Your task to perform on an android device: Open Reddit.com Image 0: 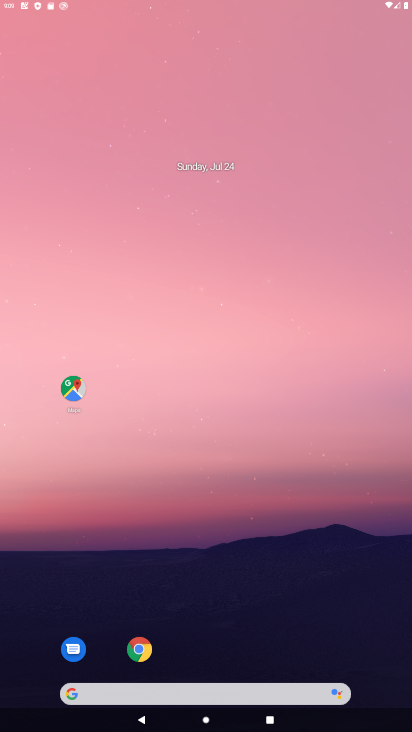
Step 0: press home button
Your task to perform on an android device: Open Reddit.com Image 1: 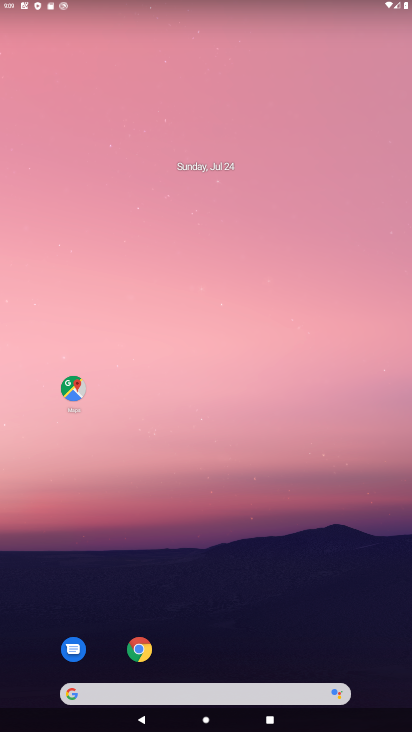
Step 1: drag from (330, 605) to (355, 78)
Your task to perform on an android device: Open Reddit.com Image 2: 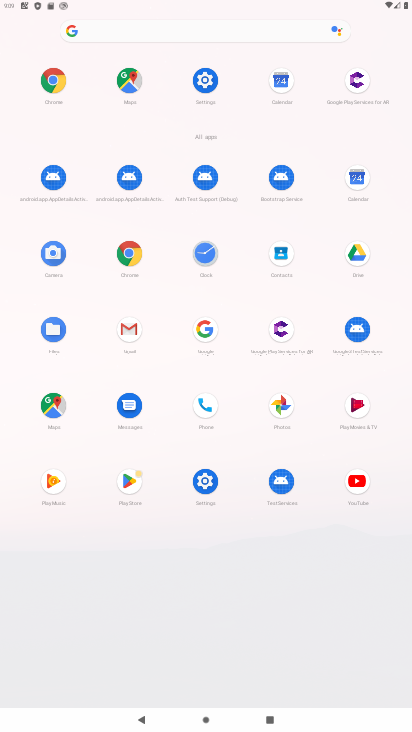
Step 2: click (130, 253)
Your task to perform on an android device: Open Reddit.com Image 3: 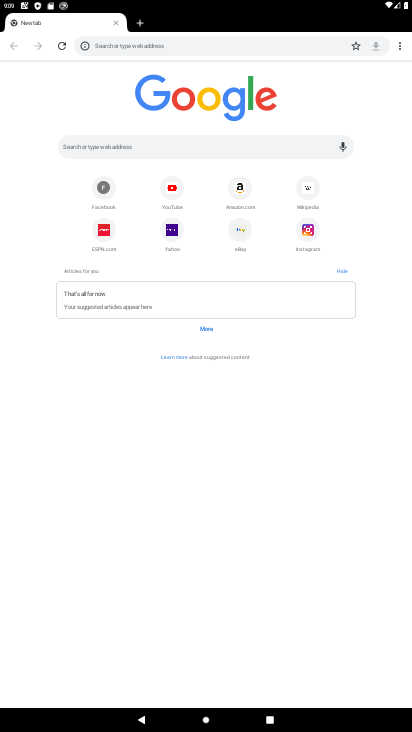
Step 3: click (239, 141)
Your task to perform on an android device: Open Reddit.com Image 4: 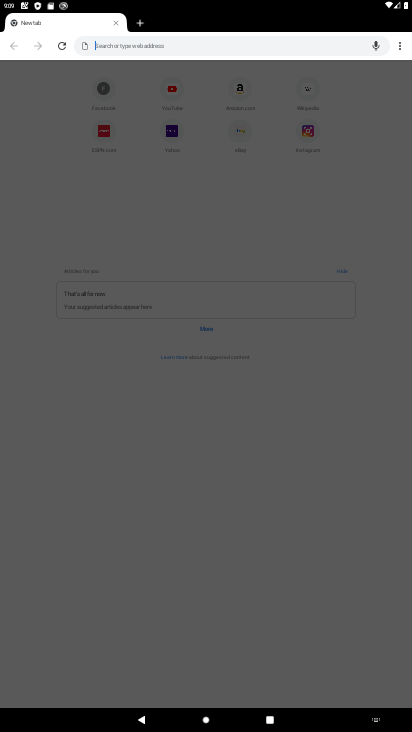
Step 4: type "reddit.com"
Your task to perform on an android device: Open Reddit.com Image 5: 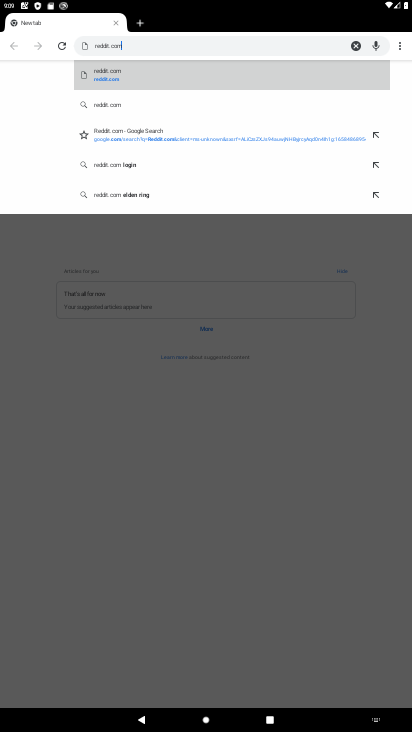
Step 5: click (317, 74)
Your task to perform on an android device: Open Reddit.com Image 6: 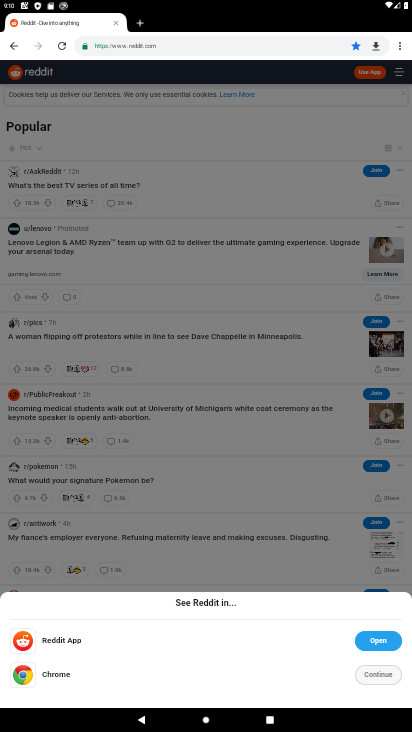
Step 6: task complete